Your task to perform on an android device: manage bookmarks in the chrome app Image 0: 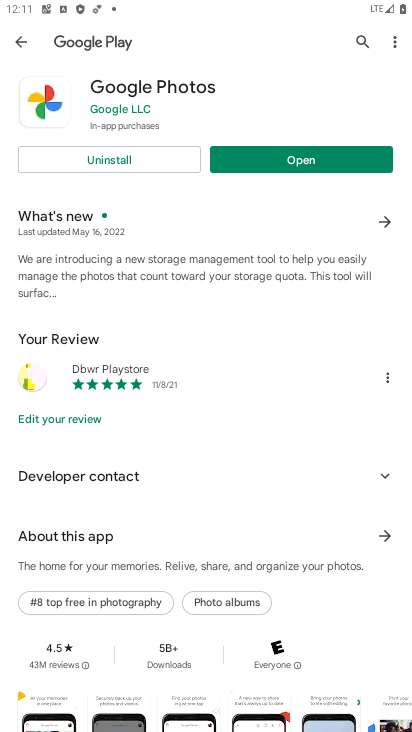
Step 0: press home button
Your task to perform on an android device: manage bookmarks in the chrome app Image 1: 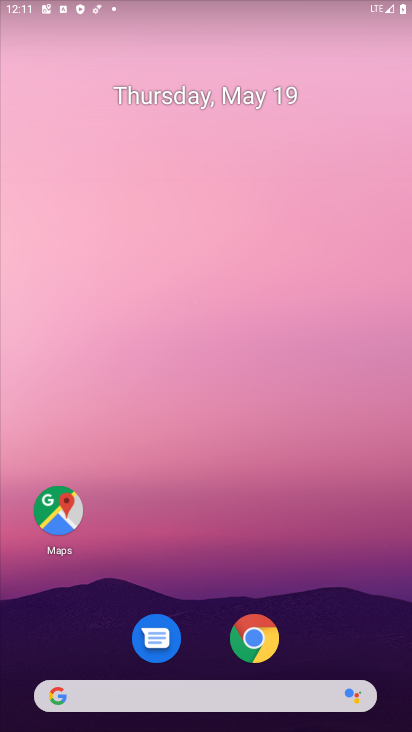
Step 1: drag from (358, 611) to (326, 124)
Your task to perform on an android device: manage bookmarks in the chrome app Image 2: 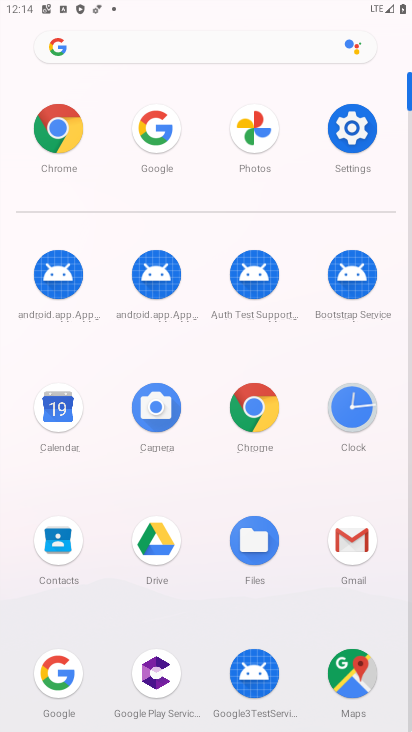
Step 2: click (271, 401)
Your task to perform on an android device: manage bookmarks in the chrome app Image 3: 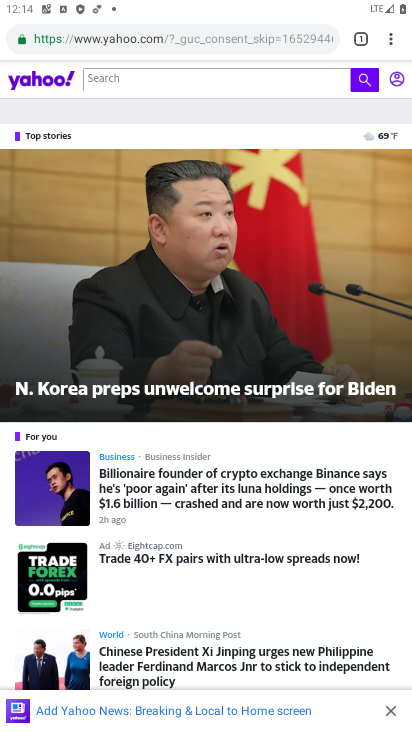
Step 3: task complete